Your task to perform on an android device: What's the weather going to be this weekend? Image 0: 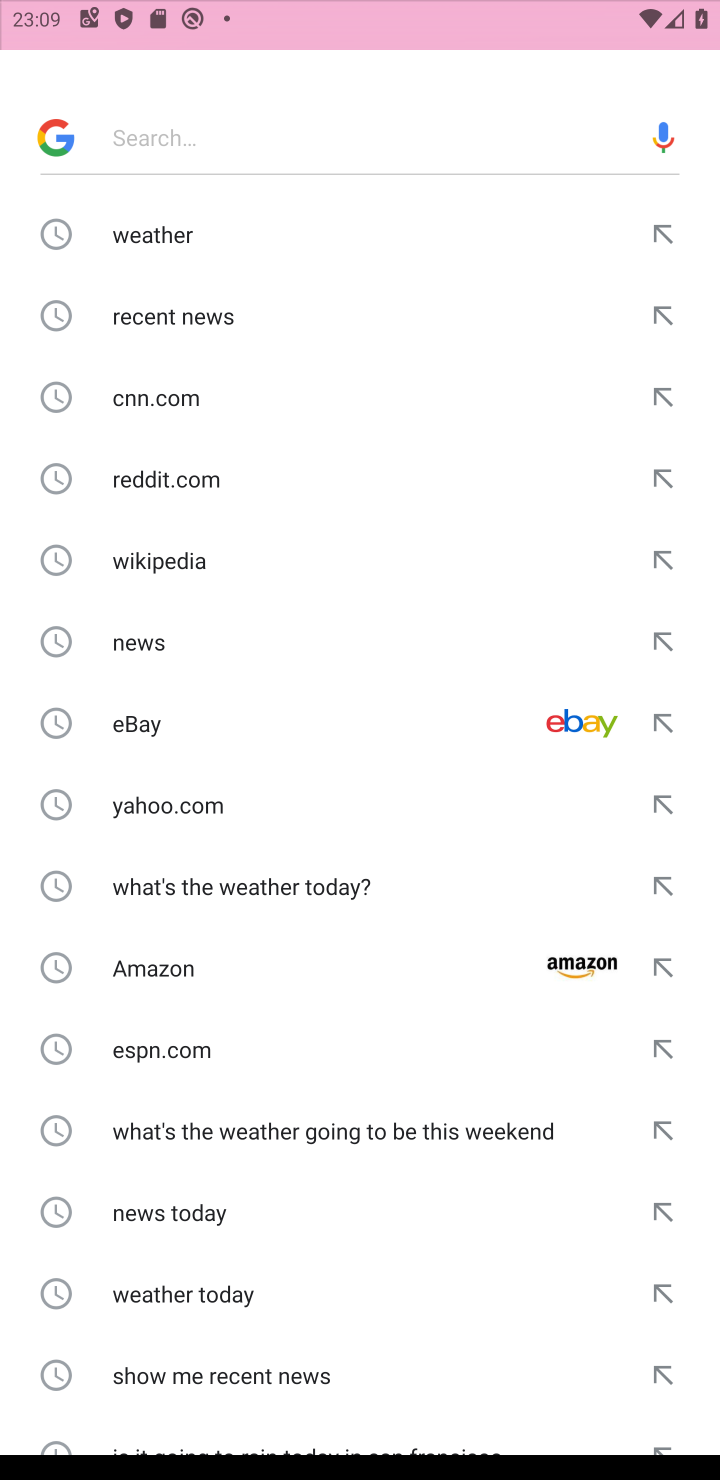
Step 0: press home button
Your task to perform on an android device: What's the weather going to be this weekend? Image 1: 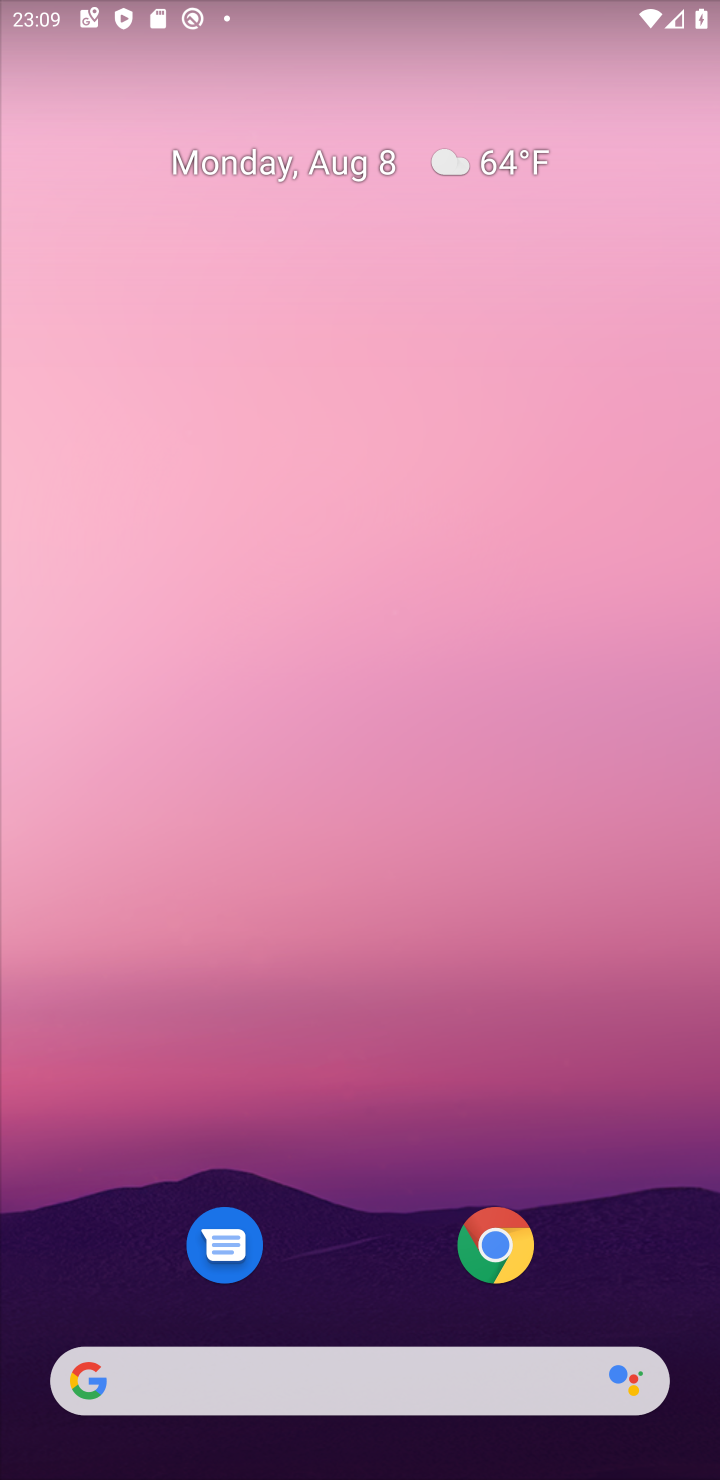
Step 1: click (340, 1361)
Your task to perform on an android device: What's the weather going to be this weekend? Image 2: 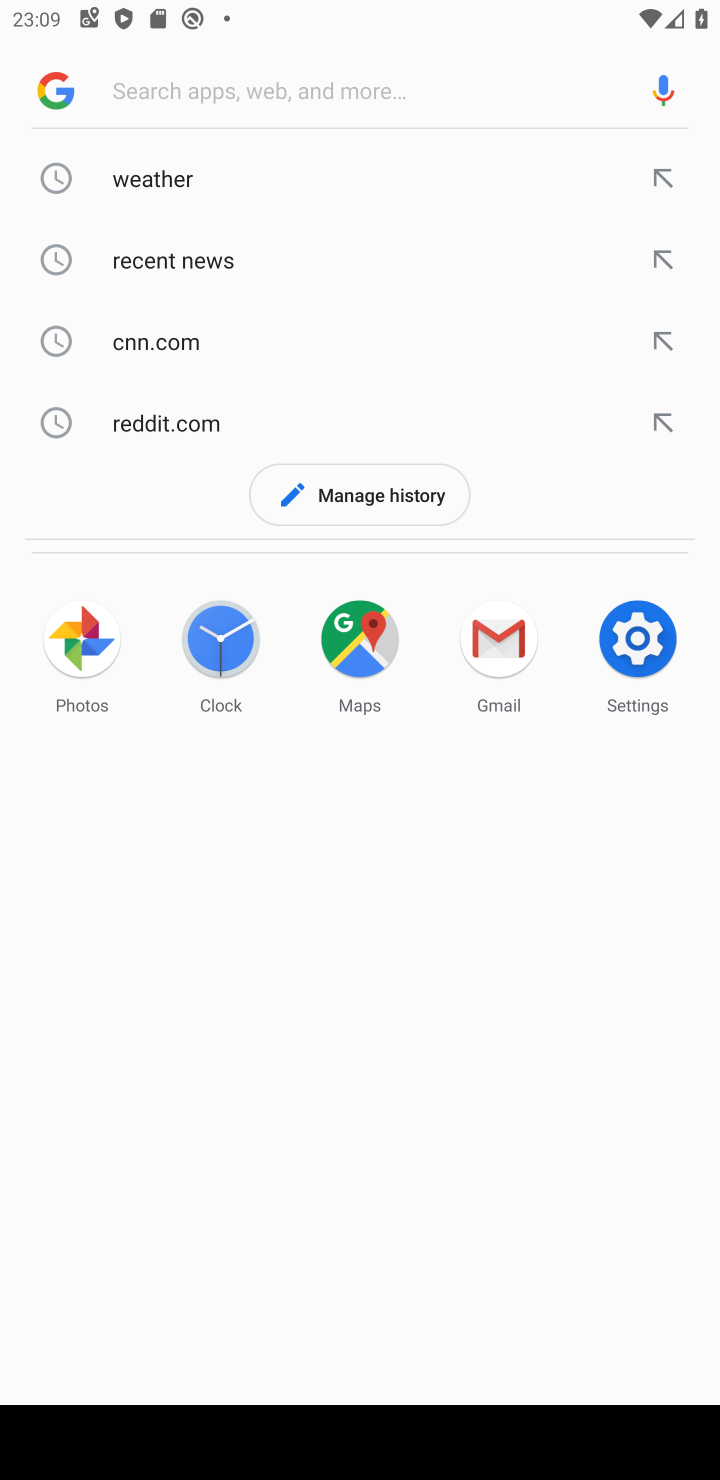
Step 2: click (156, 178)
Your task to perform on an android device: What's the weather going to be this weekend? Image 3: 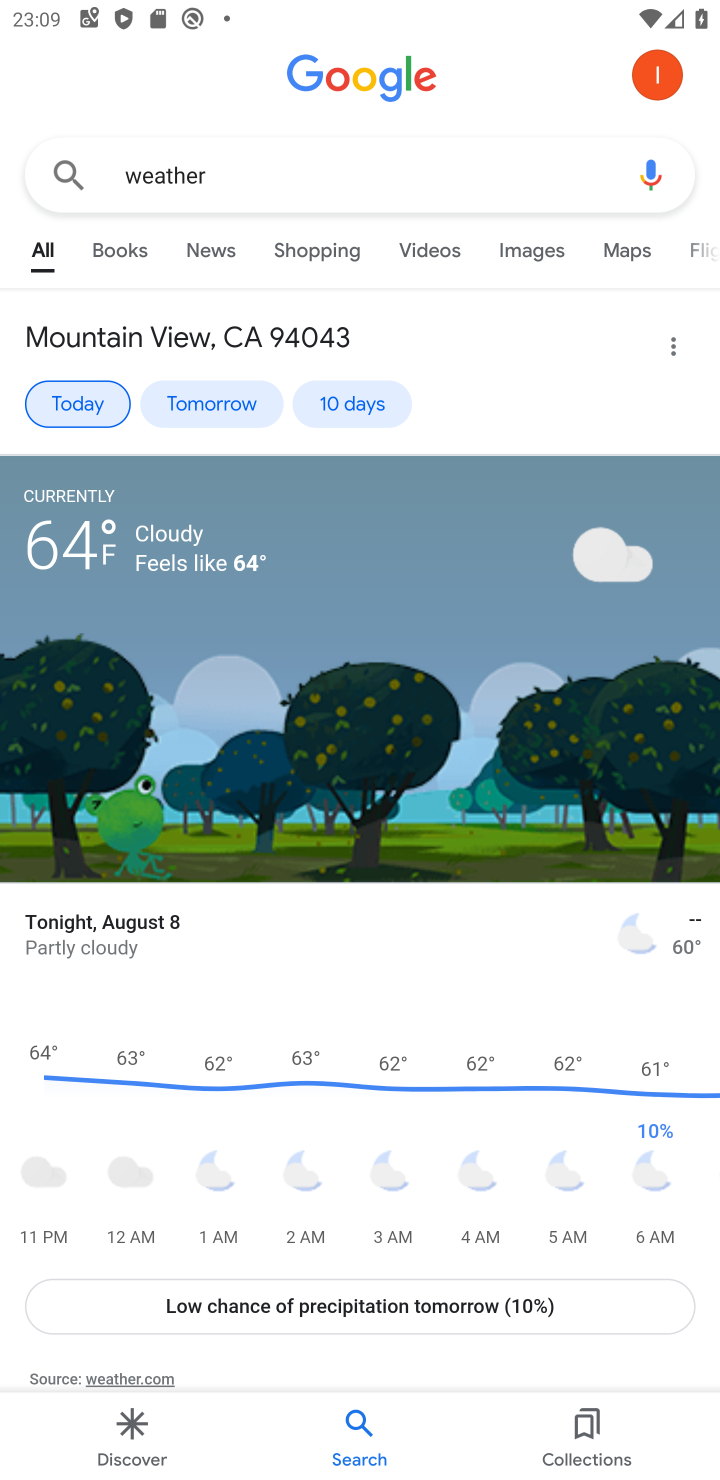
Step 3: click (333, 397)
Your task to perform on an android device: What's the weather going to be this weekend? Image 4: 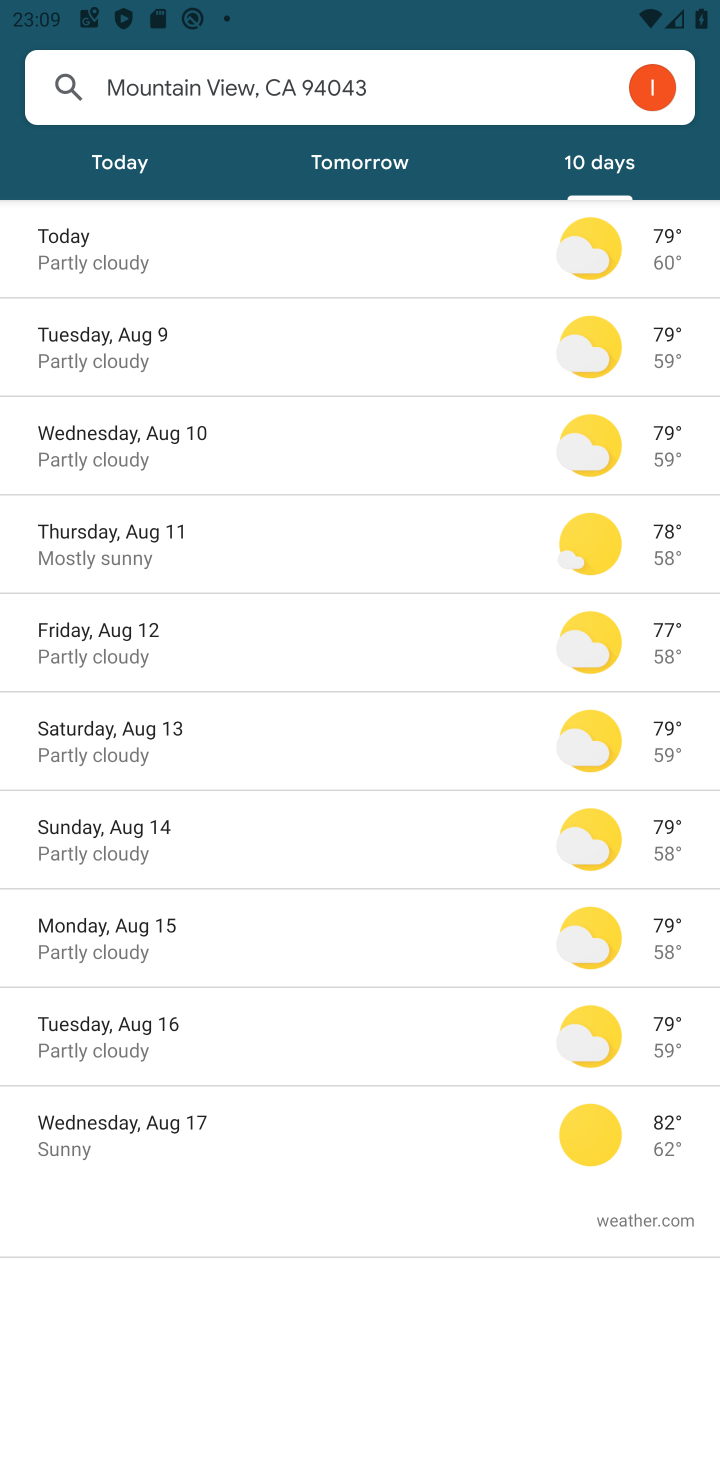
Step 4: task complete